Your task to perform on an android device: What's on my calendar tomorrow? Image 0: 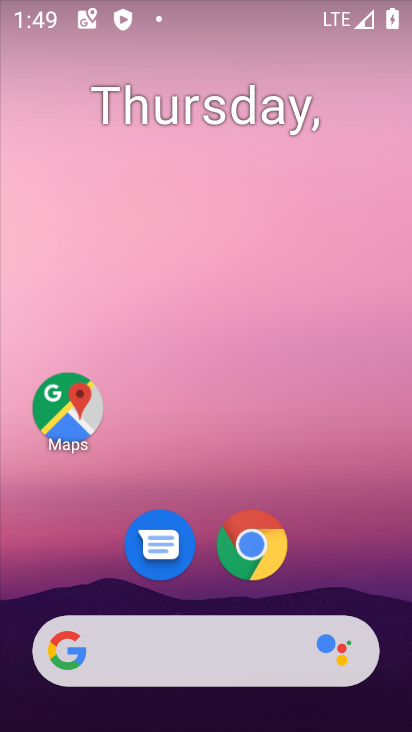
Step 0: drag from (217, 688) to (193, 81)
Your task to perform on an android device: What's on my calendar tomorrow? Image 1: 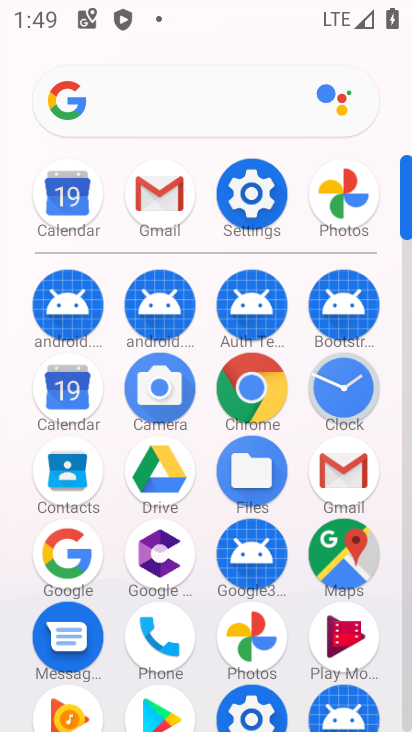
Step 1: click (39, 381)
Your task to perform on an android device: What's on my calendar tomorrow? Image 2: 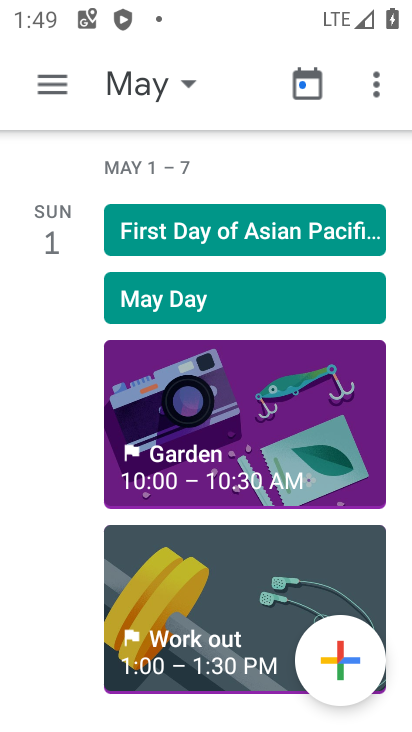
Step 2: click (154, 103)
Your task to perform on an android device: What's on my calendar tomorrow? Image 3: 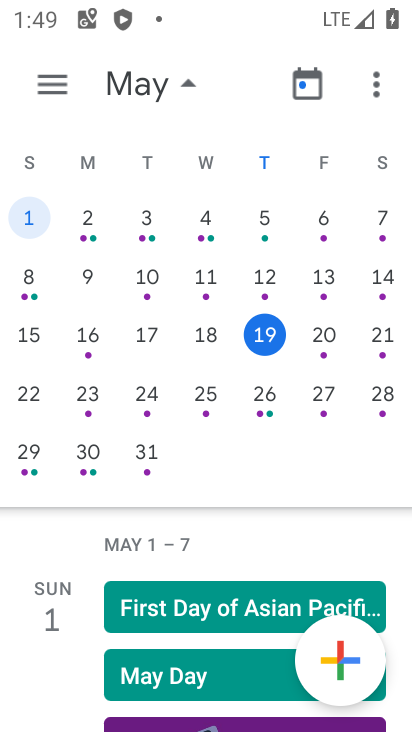
Step 3: click (314, 338)
Your task to perform on an android device: What's on my calendar tomorrow? Image 4: 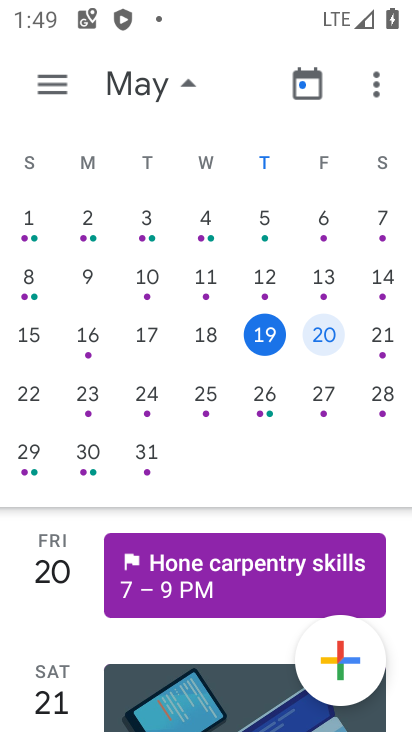
Step 4: task complete